Your task to perform on an android device: move a message to another label in the gmail app Image 0: 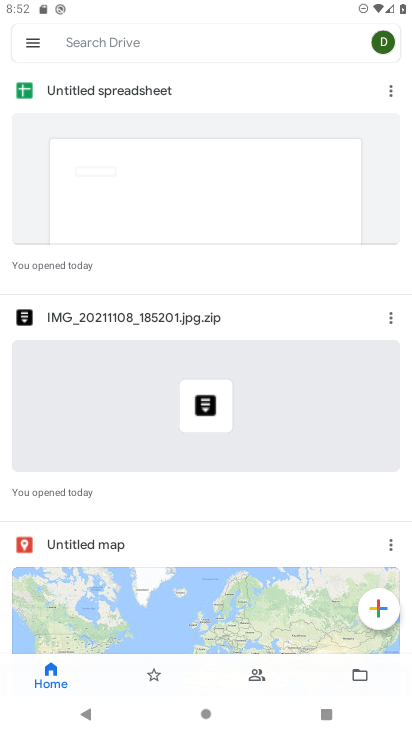
Step 0: press home button
Your task to perform on an android device: move a message to another label in the gmail app Image 1: 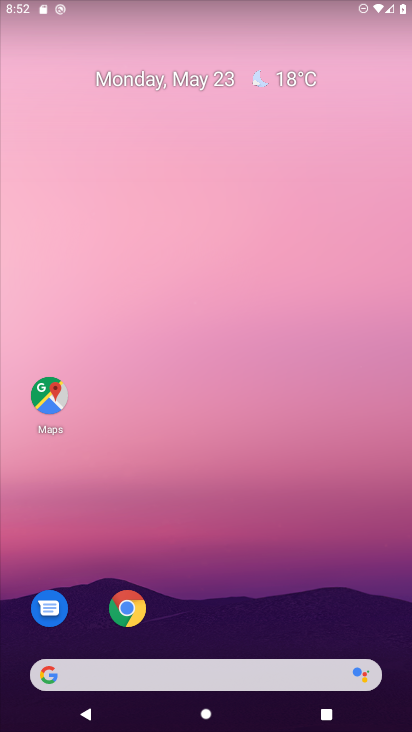
Step 1: drag from (231, 726) to (230, 151)
Your task to perform on an android device: move a message to another label in the gmail app Image 2: 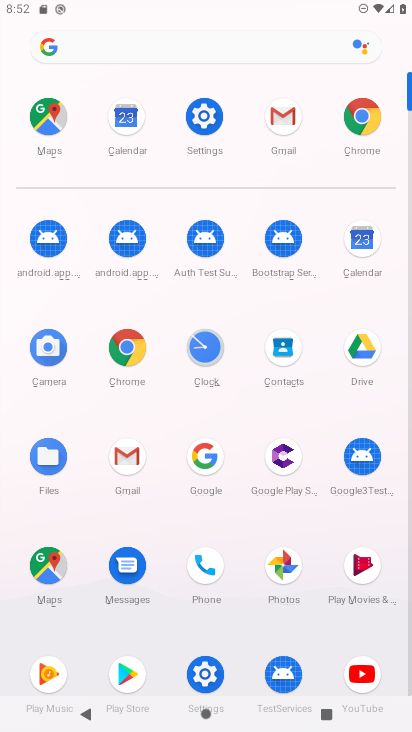
Step 2: click (121, 451)
Your task to perform on an android device: move a message to another label in the gmail app Image 3: 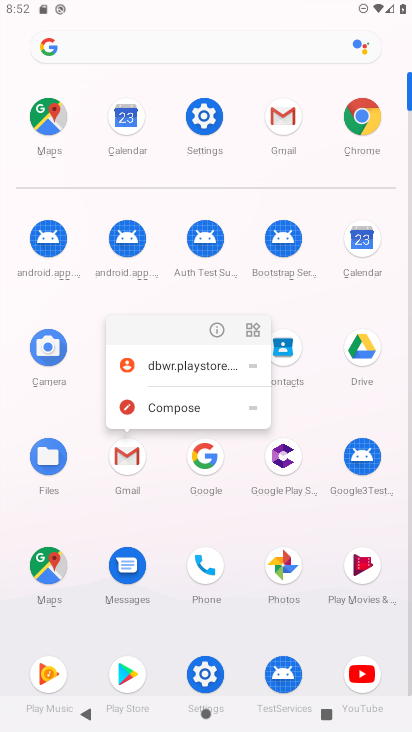
Step 3: click (127, 466)
Your task to perform on an android device: move a message to another label in the gmail app Image 4: 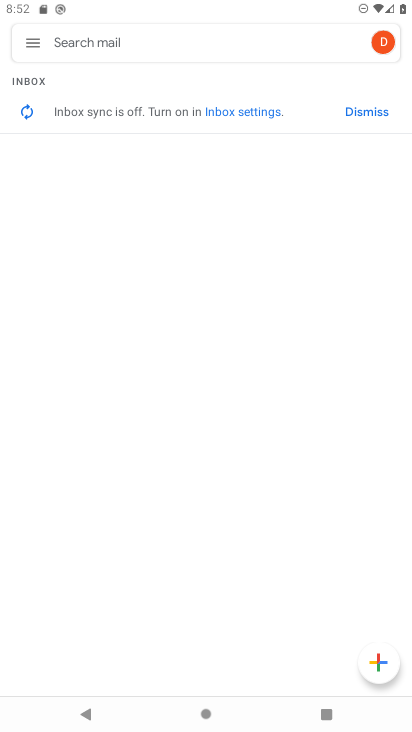
Step 4: task complete